Your task to perform on an android device: Open Chrome and go to settings Image 0: 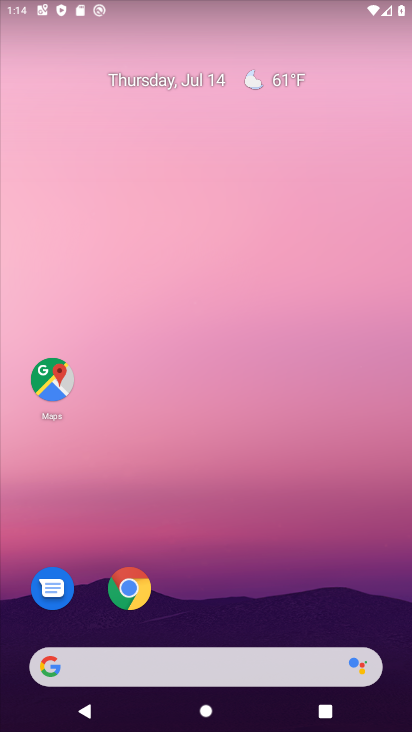
Step 0: drag from (242, 584) to (231, 360)
Your task to perform on an android device: Open Chrome and go to settings Image 1: 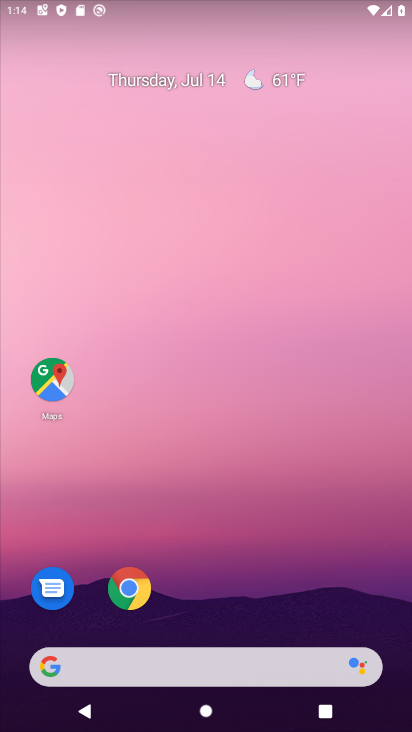
Step 1: click (121, 590)
Your task to perform on an android device: Open Chrome and go to settings Image 2: 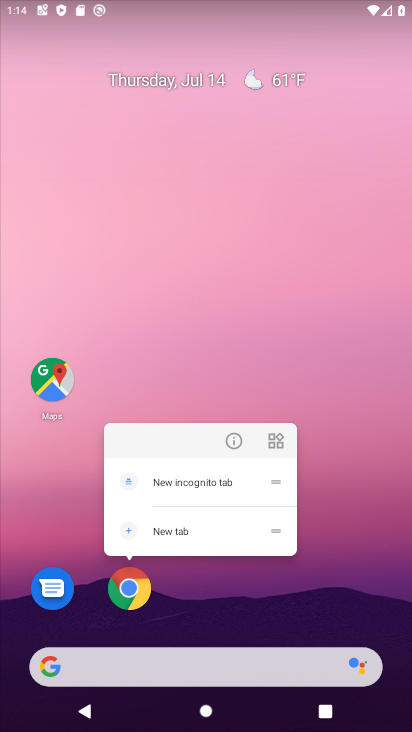
Step 2: click (121, 590)
Your task to perform on an android device: Open Chrome and go to settings Image 3: 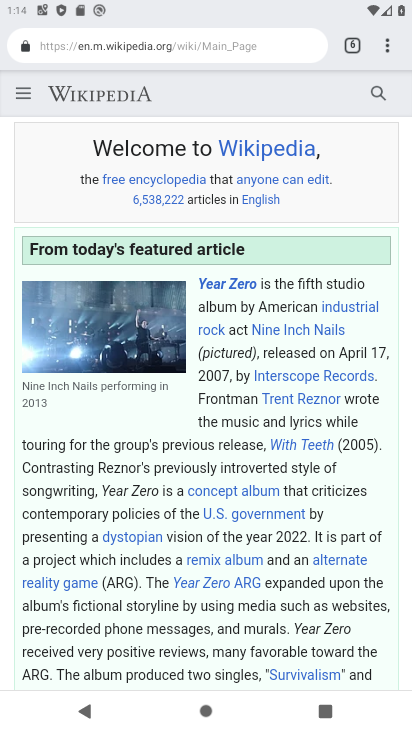
Step 3: click (381, 41)
Your task to perform on an android device: Open Chrome and go to settings Image 4: 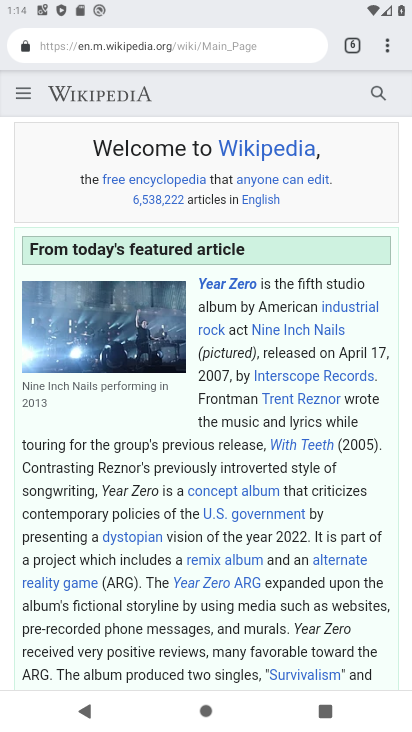
Step 4: click (394, 38)
Your task to perform on an android device: Open Chrome and go to settings Image 5: 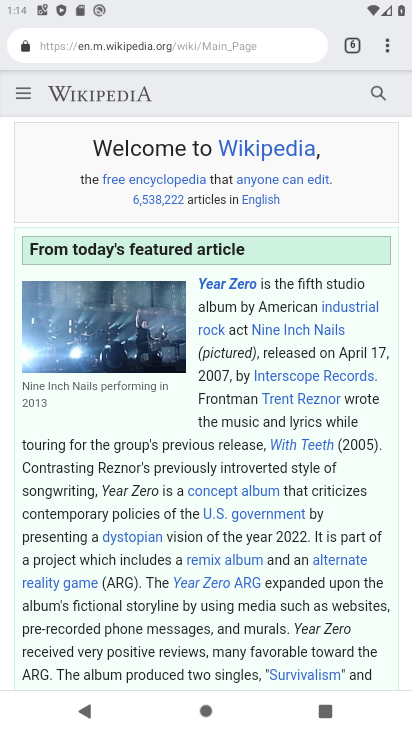
Step 5: click (394, 38)
Your task to perform on an android device: Open Chrome and go to settings Image 6: 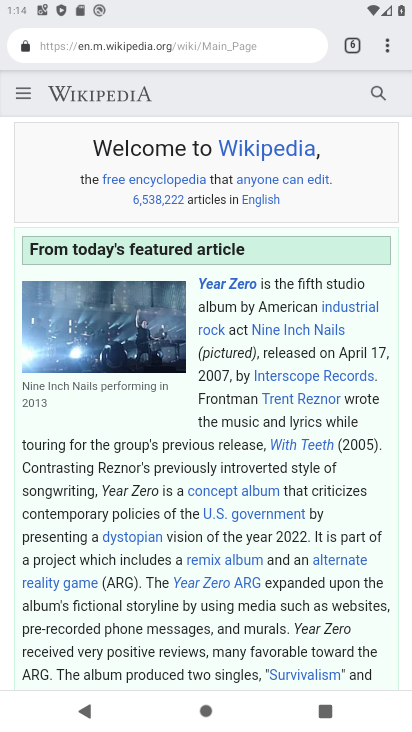
Step 6: click (394, 40)
Your task to perform on an android device: Open Chrome and go to settings Image 7: 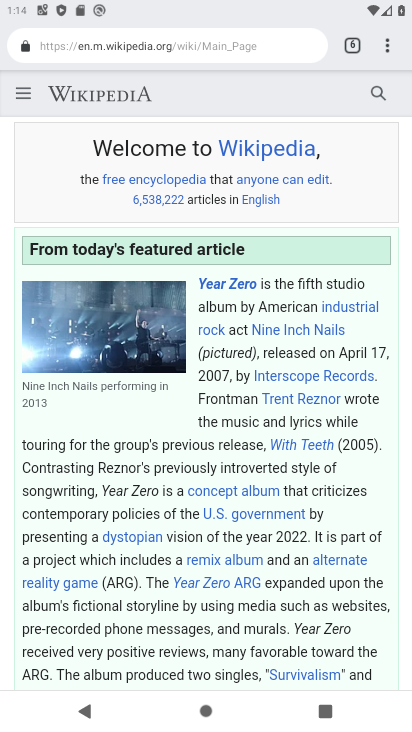
Step 7: click (384, 38)
Your task to perform on an android device: Open Chrome and go to settings Image 8: 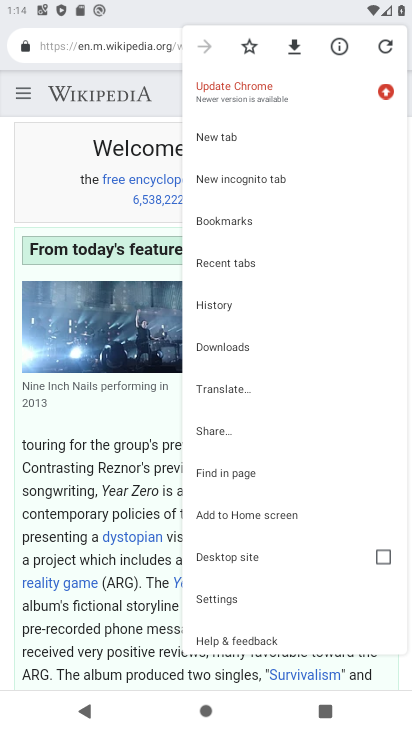
Step 8: click (239, 586)
Your task to perform on an android device: Open Chrome and go to settings Image 9: 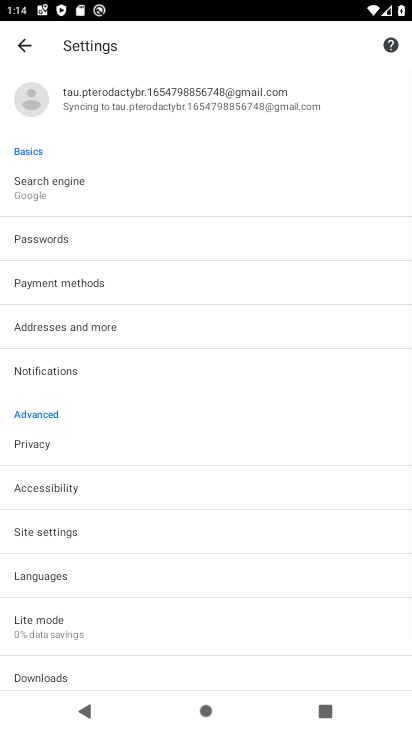
Step 9: task complete